Your task to perform on an android device: Open the calendar app, open the side menu, and click the "Day" option Image 0: 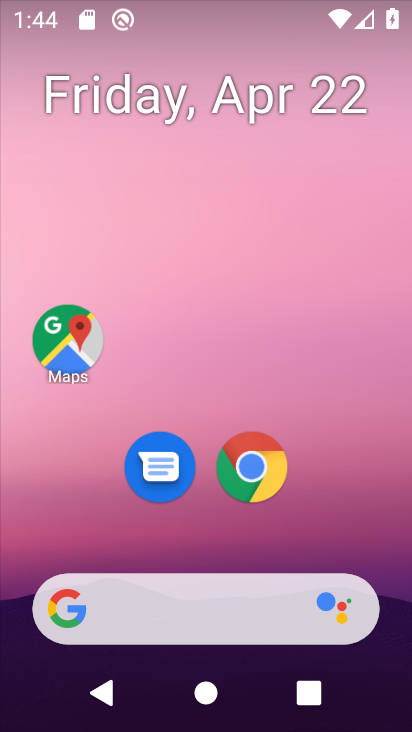
Step 0: drag from (305, 520) to (346, 61)
Your task to perform on an android device: Open the calendar app, open the side menu, and click the "Day" option Image 1: 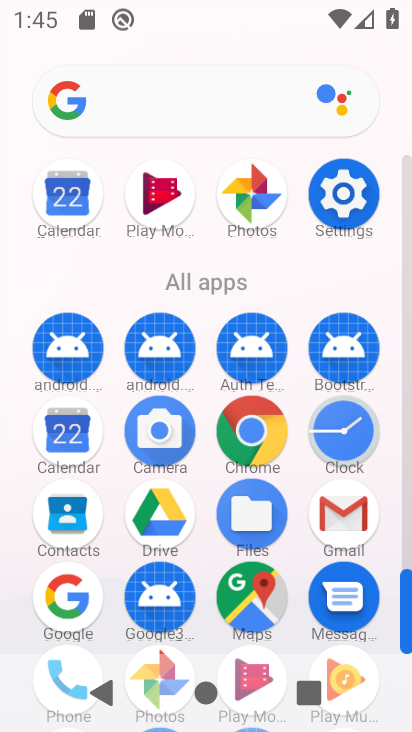
Step 1: click (92, 450)
Your task to perform on an android device: Open the calendar app, open the side menu, and click the "Day" option Image 2: 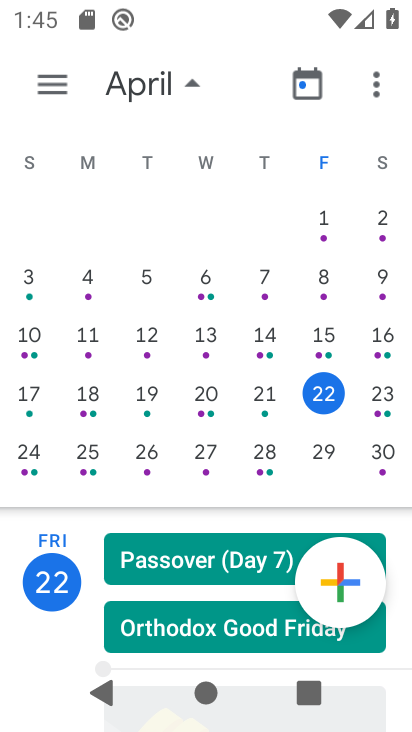
Step 2: click (41, 79)
Your task to perform on an android device: Open the calendar app, open the side menu, and click the "Day" option Image 3: 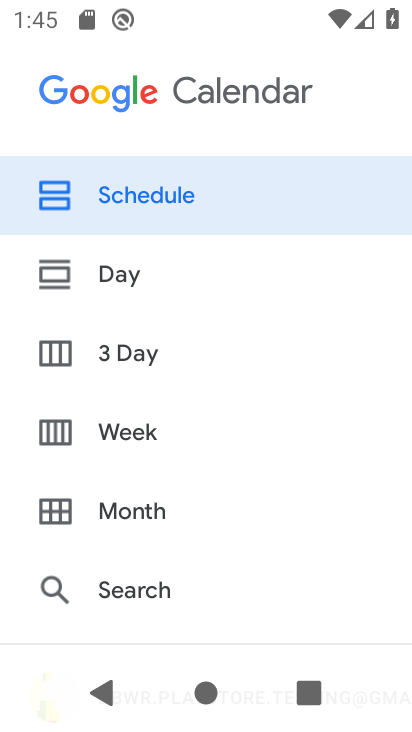
Step 3: click (126, 283)
Your task to perform on an android device: Open the calendar app, open the side menu, and click the "Day" option Image 4: 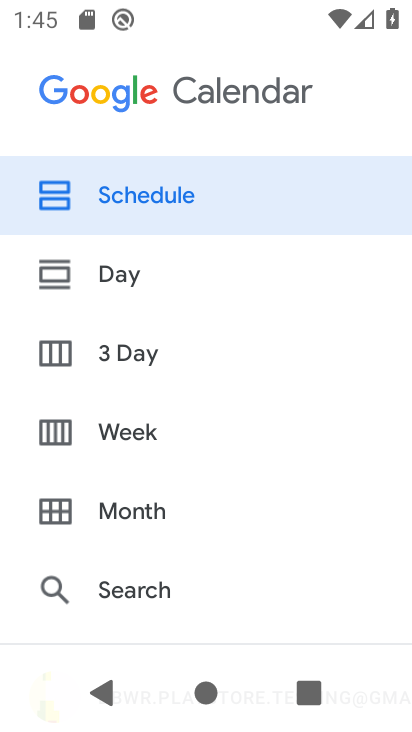
Step 4: click (122, 282)
Your task to perform on an android device: Open the calendar app, open the side menu, and click the "Day" option Image 5: 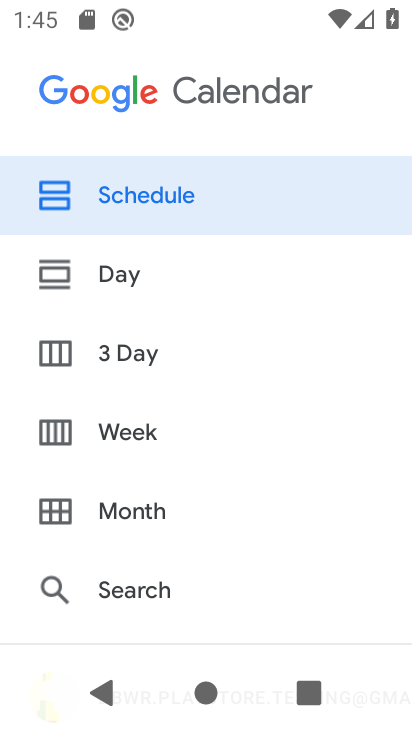
Step 5: click (122, 282)
Your task to perform on an android device: Open the calendar app, open the side menu, and click the "Day" option Image 6: 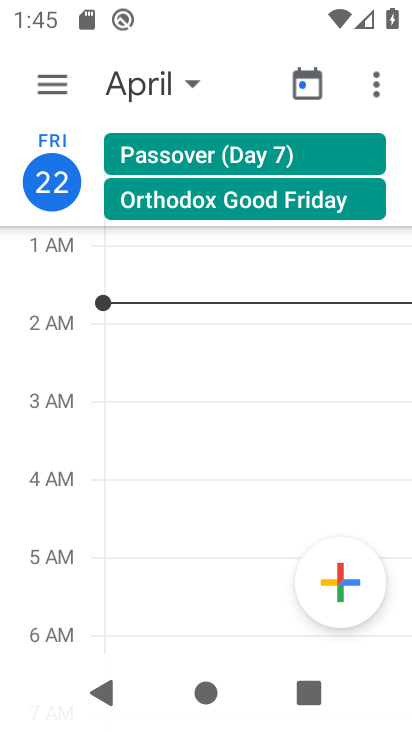
Step 6: task complete